Your task to perform on an android device: Is it going to rain this weekend? Image 0: 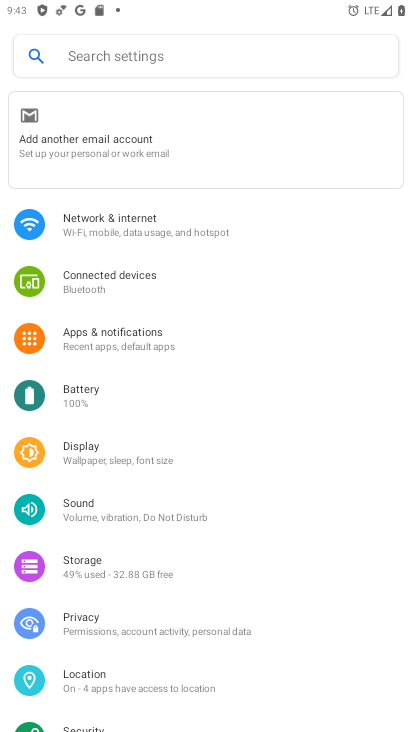
Step 0: press home button
Your task to perform on an android device: Is it going to rain this weekend? Image 1: 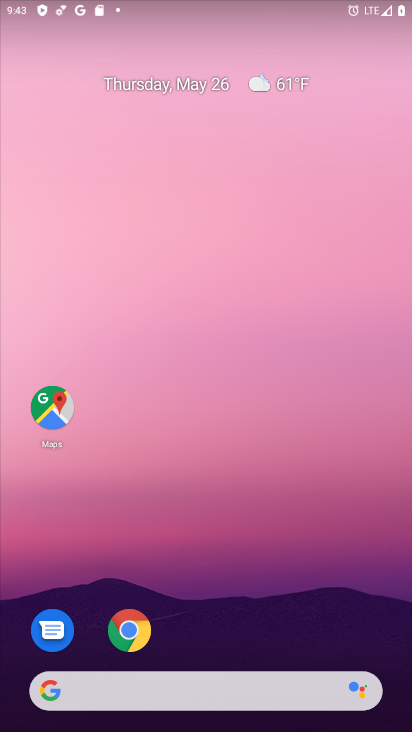
Step 1: click (194, 676)
Your task to perform on an android device: Is it going to rain this weekend? Image 2: 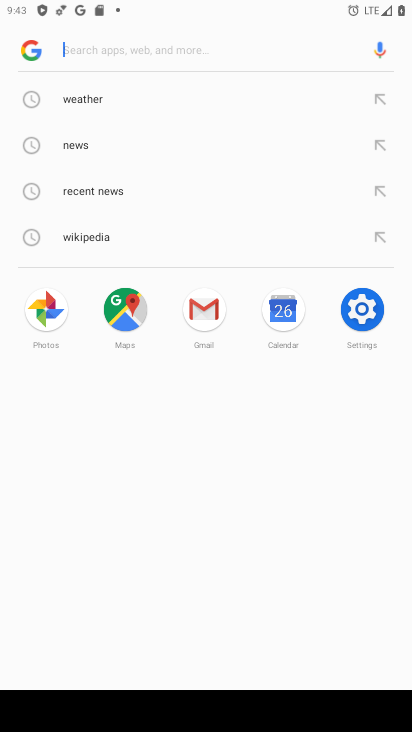
Step 2: click (73, 94)
Your task to perform on an android device: Is it going to rain this weekend? Image 3: 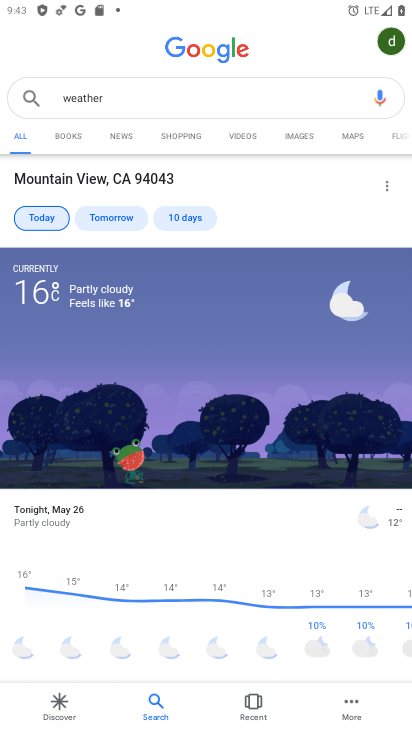
Step 3: click (182, 220)
Your task to perform on an android device: Is it going to rain this weekend? Image 4: 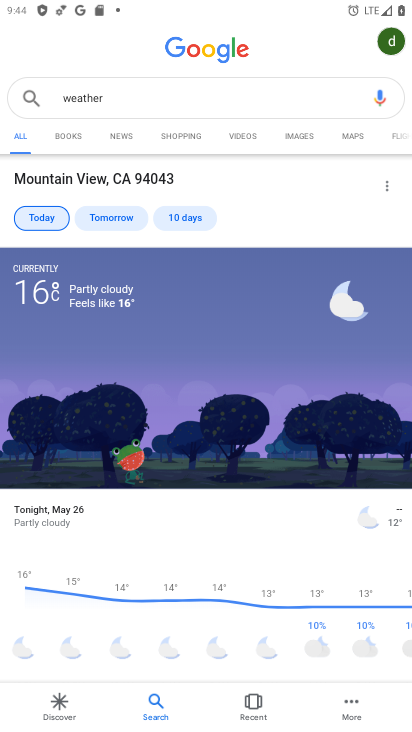
Step 4: click (182, 220)
Your task to perform on an android device: Is it going to rain this weekend? Image 5: 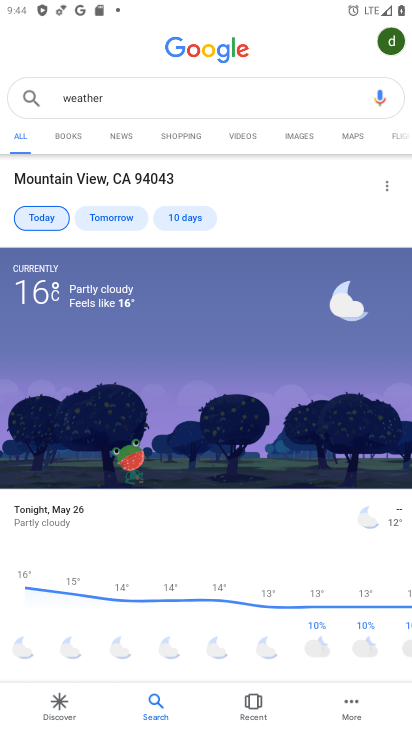
Step 5: click (195, 218)
Your task to perform on an android device: Is it going to rain this weekend? Image 6: 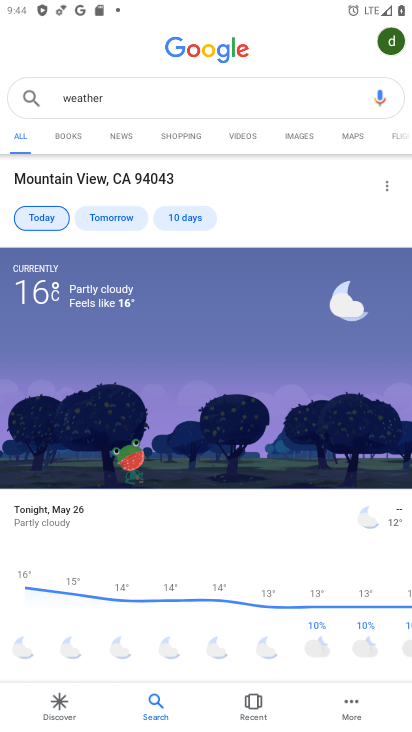
Step 6: task complete